Your task to perform on an android device: refresh tabs in the chrome app Image 0: 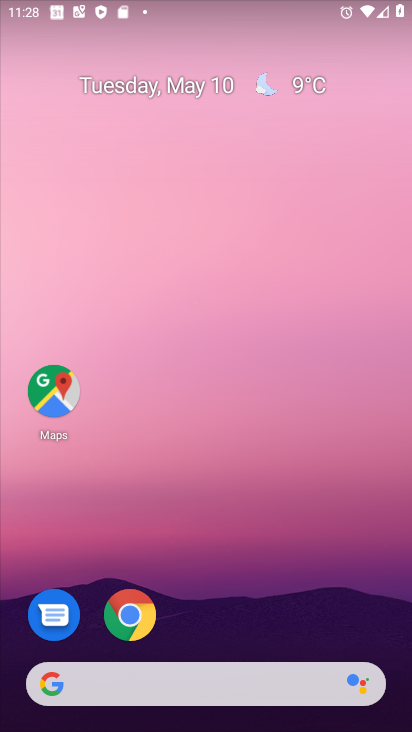
Step 0: press home button
Your task to perform on an android device: refresh tabs in the chrome app Image 1: 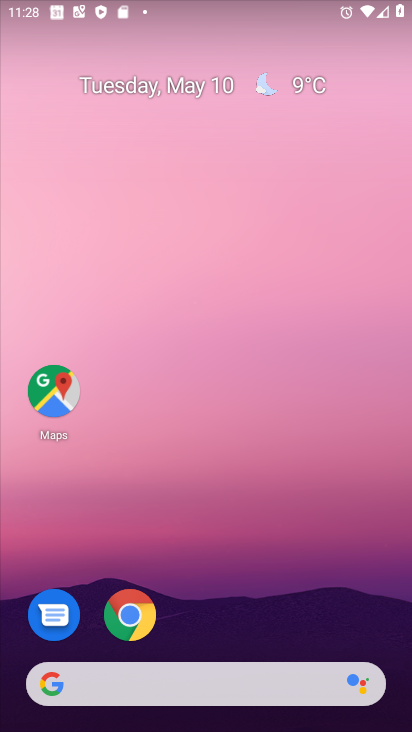
Step 1: click (133, 614)
Your task to perform on an android device: refresh tabs in the chrome app Image 2: 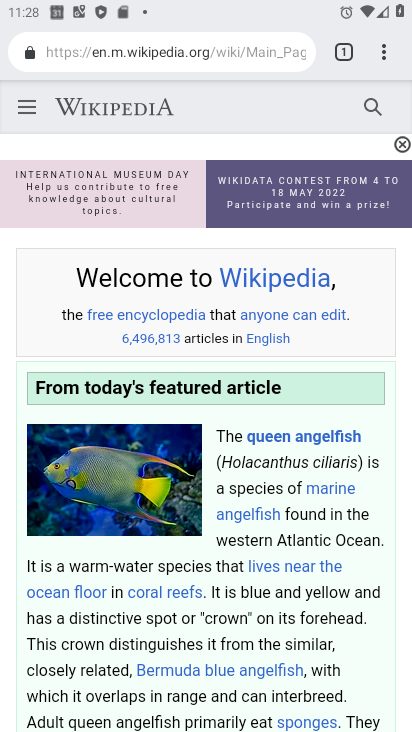
Step 2: click (384, 46)
Your task to perform on an android device: refresh tabs in the chrome app Image 3: 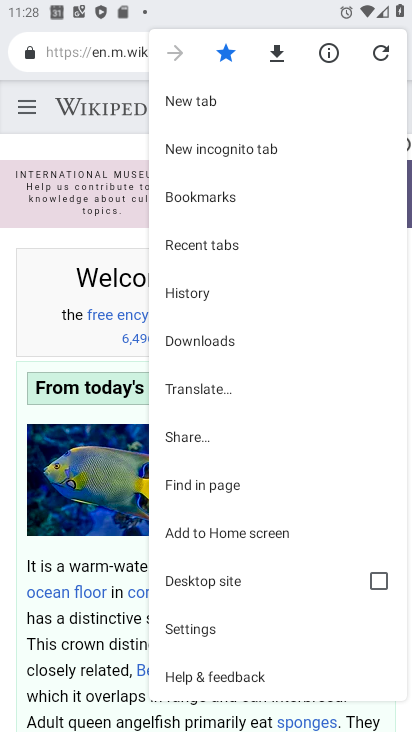
Step 3: click (386, 44)
Your task to perform on an android device: refresh tabs in the chrome app Image 4: 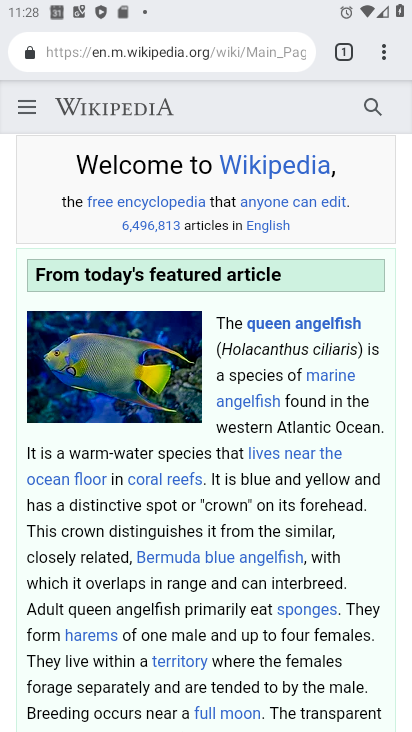
Step 4: task complete